Your task to perform on an android device: add a label to a message in the gmail app Image 0: 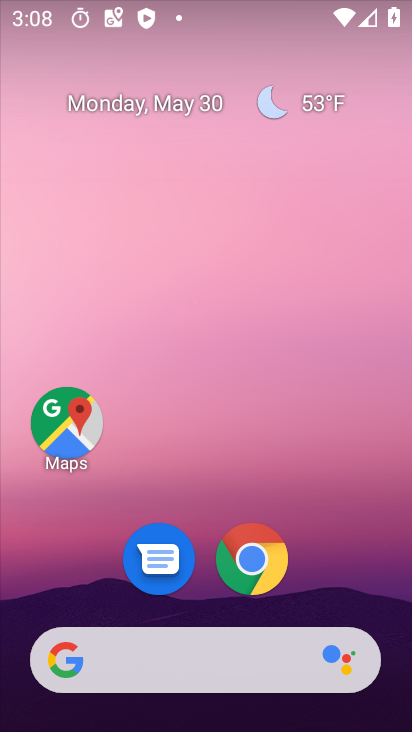
Step 0: drag from (203, 584) to (193, 290)
Your task to perform on an android device: add a label to a message in the gmail app Image 1: 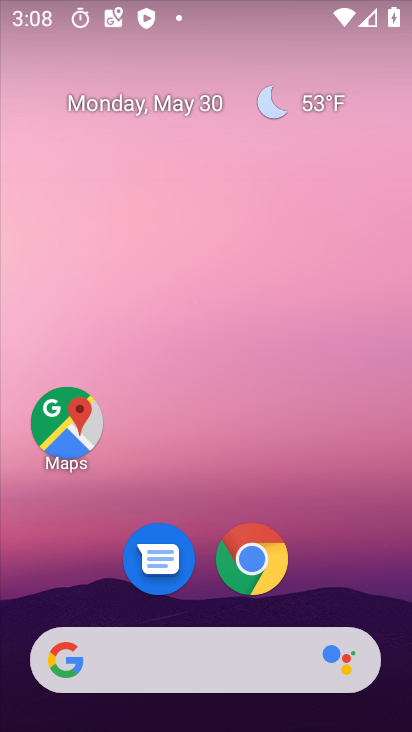
Step 1: drag from (213, 512) to (210, 283)
Your task to perform on an android device: add a label to a message in the gmail app Image 2: 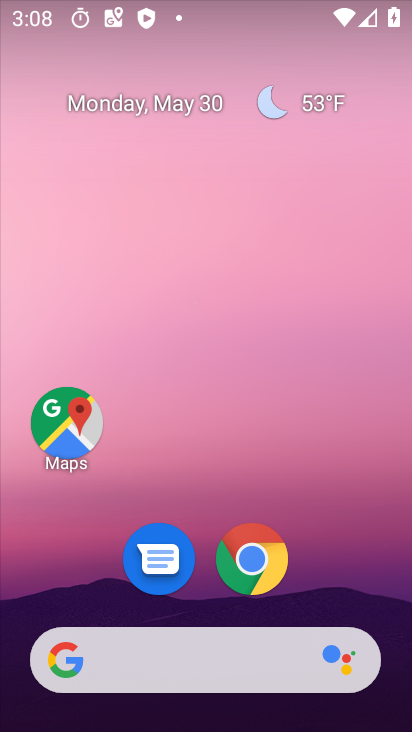
Step 2: drag from (214, 568) to (212, 394)
Your task to perform on an android device: add a label to a message in the gmail app Image 3: 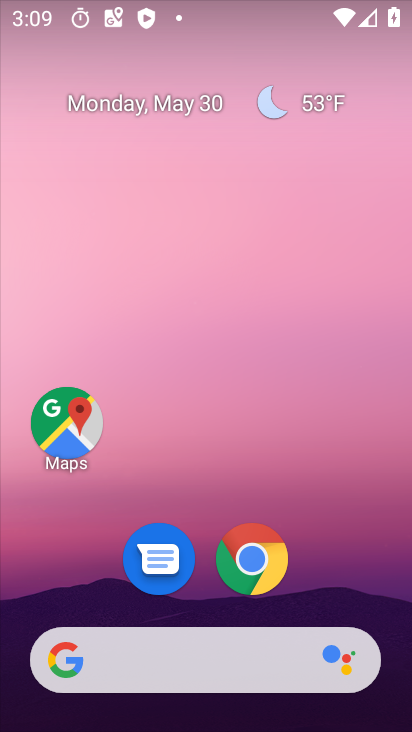
Step 3: drag from (181, 634) to (172, 134)
Your task to perform on an android device: add a label to a message in the gmail app Image 4: 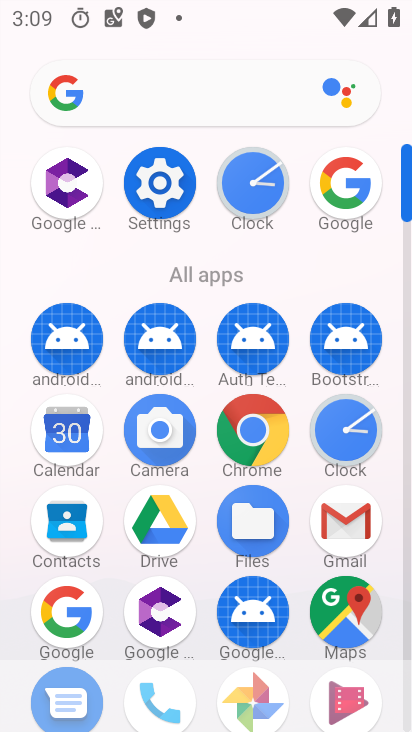
Step 4: click (333, 529)
Your task to perform on an android device: add a label to a message in the gmail app Image 5: 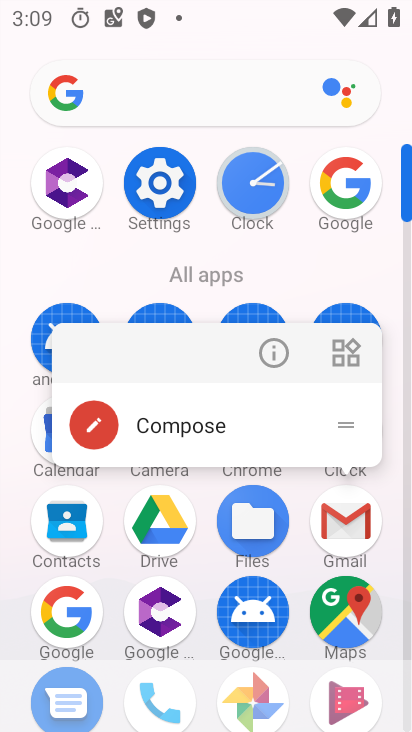
Step 5: click (334, 529)
Your task to perform on an android device: add a label to a message in the gmail app Image 6: 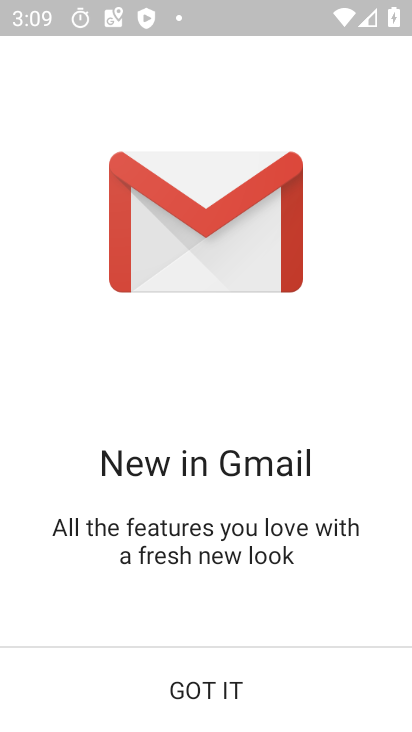
Step 6: click (245, 681)
Your task to perform on an android device: add a label to a message in the gmail app Image 7: 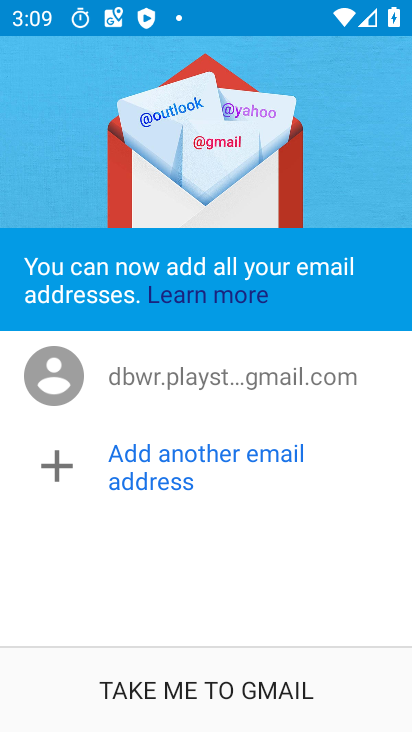
Step 7: click (245, 681)
Your task to perform on an android device: add a label to a message in the gmail app Image 8: 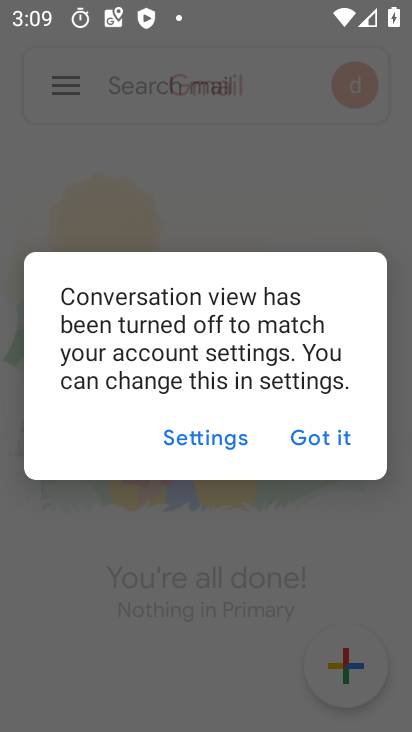
Step 8: click (330, 439)
Your task to perform on an android device: add a label to a message in the gmail app Image 9: 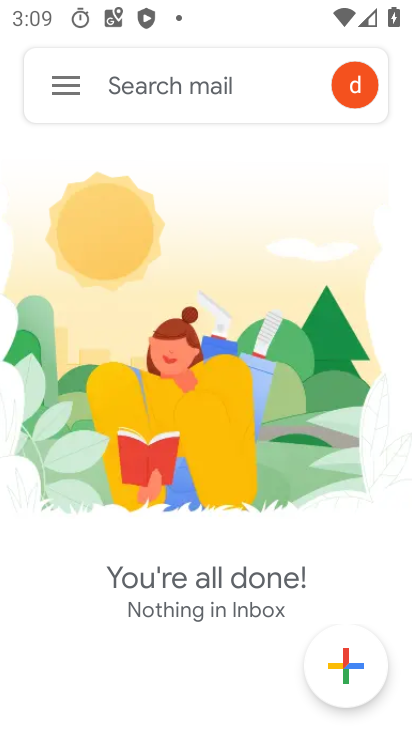
Step 9: task complete